Your task to perform on an android device: Go to eBay Image 0: 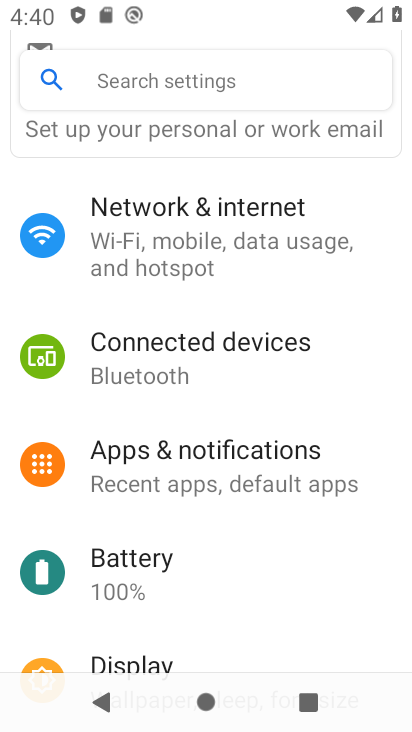
Step 0: press home button
Your task to perform on an android device: Go to eBay Image 1: 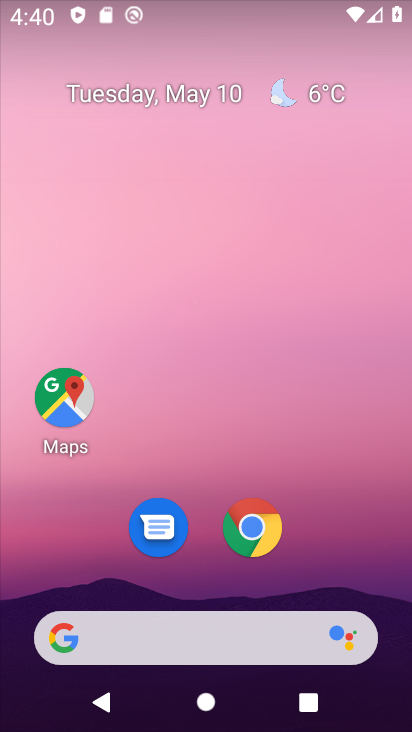
Step 1: click (251, 542)
Your task to perform on an android device: Go to eBay Image 2: 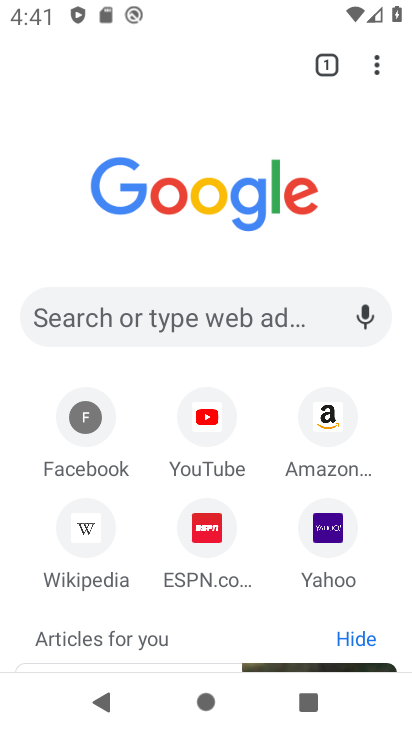
Step 2: click (190, 311)
Your task to perform on an android device: Go to eBay Image 3: 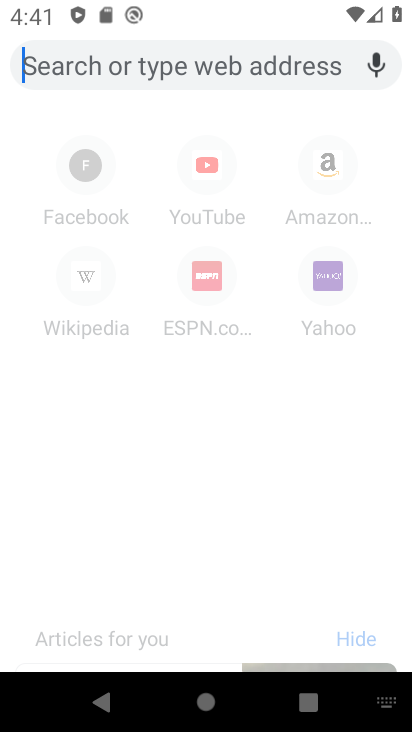
Step 3: type "ebay"
Your task to perform on an android device: Go to eBay Image 4: 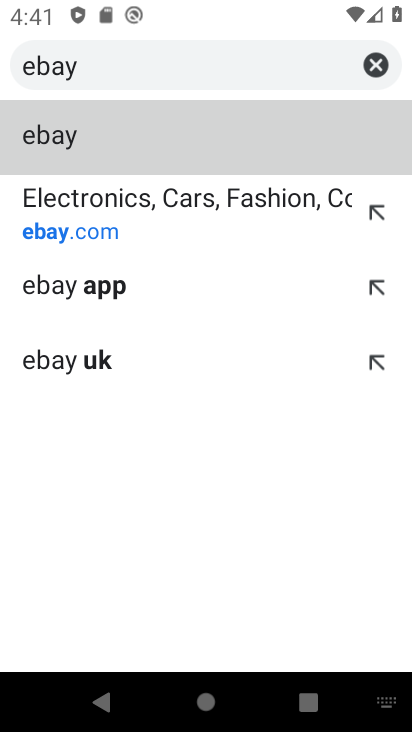
Step 4: click (187, 158)
Your task to perform on an android device: Go to eBay Image 5: 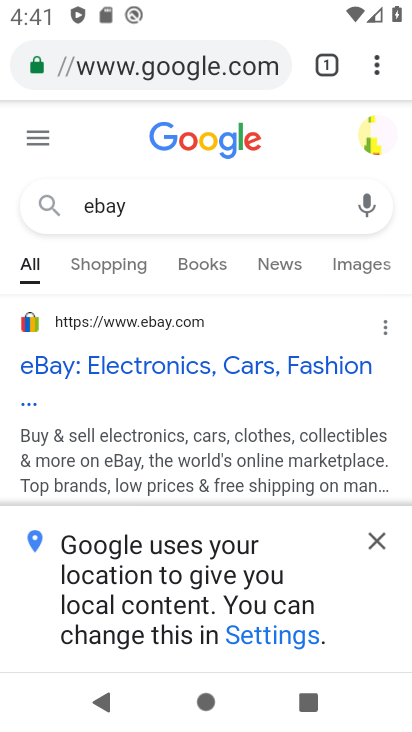
Step 5: click (230, 363)
Your task to perform on an android device: Go to eBay Image 6: 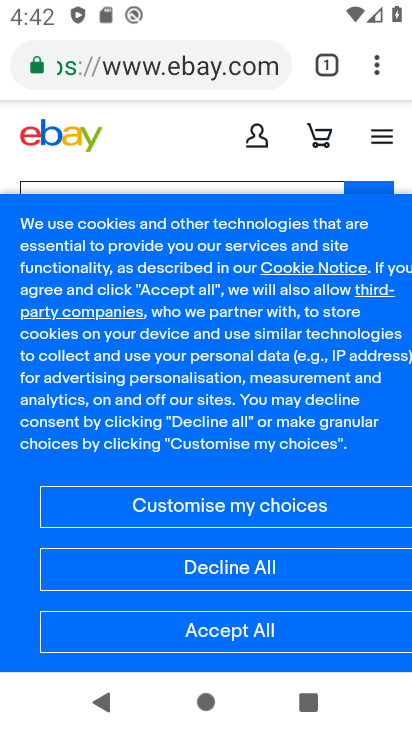
Step 6: task complete